Your task to perform on an android device: change the clock display to analog Image 0: 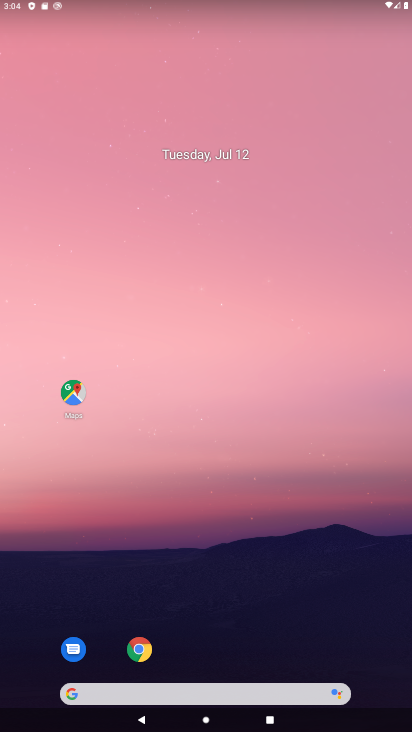
Step 0: drag from (214, 667) to (242, 84)
Your task to perform on an android device: change the clock display to analog Image 1: 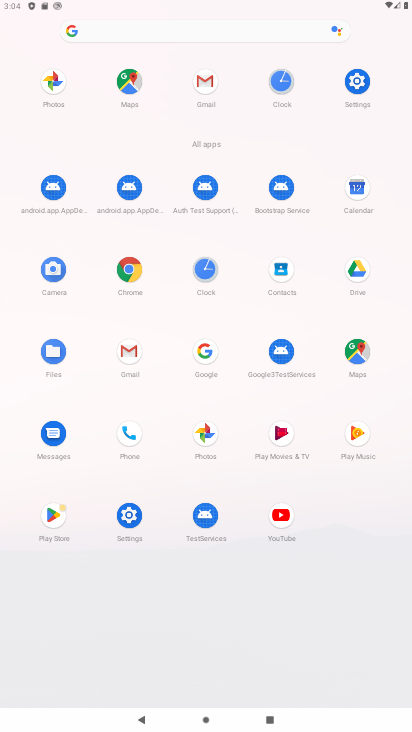
Step 1: click (201, 264)
Your task to perform on an android device: change the clock display to analog Image 2: 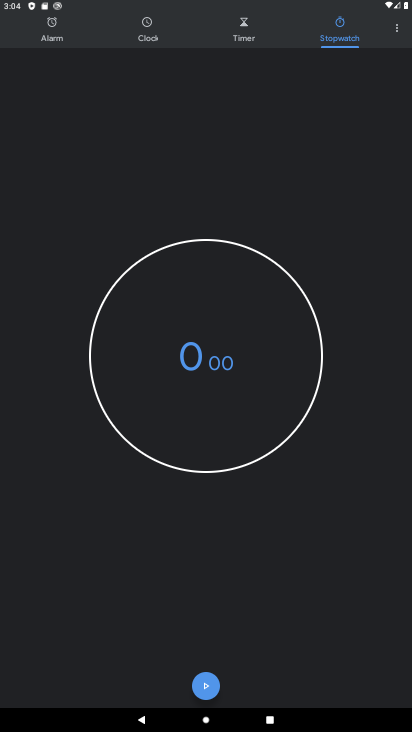
Step 2: click (399, 25)
Your task to perform on an android device: change the clock display to analog Image 3: 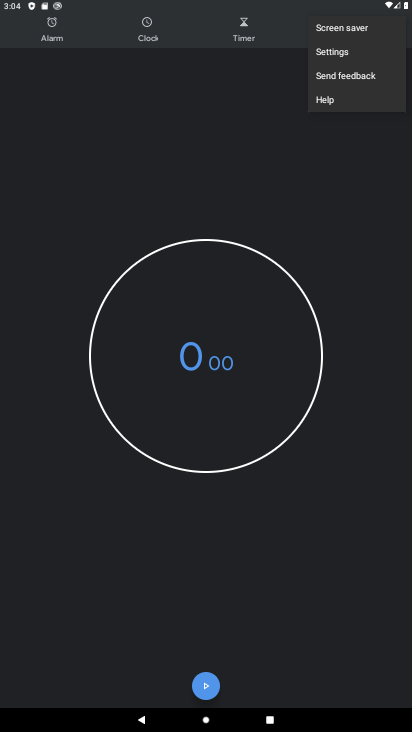
Step 3: click (353, 49)
Your task to perform on an android device: change the clock display to analog Image 4: 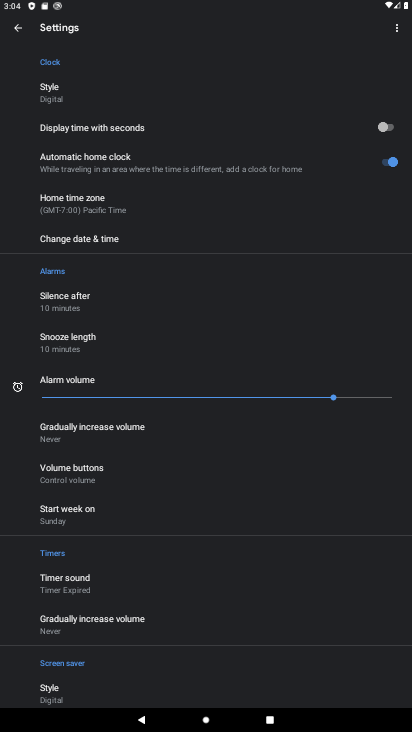
Step 4: click (70, 93)
Your task to perform on an android device: change the clock display to analog Image 5: 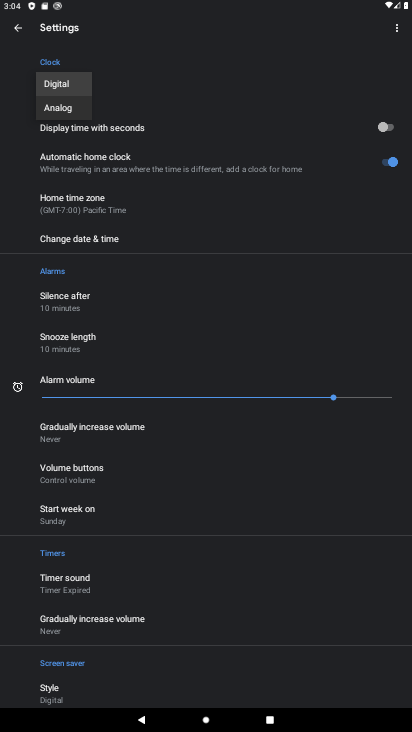
Step 5: click (68, 108)
Your task to perform on an android device: change the clock display to analog Image 6: 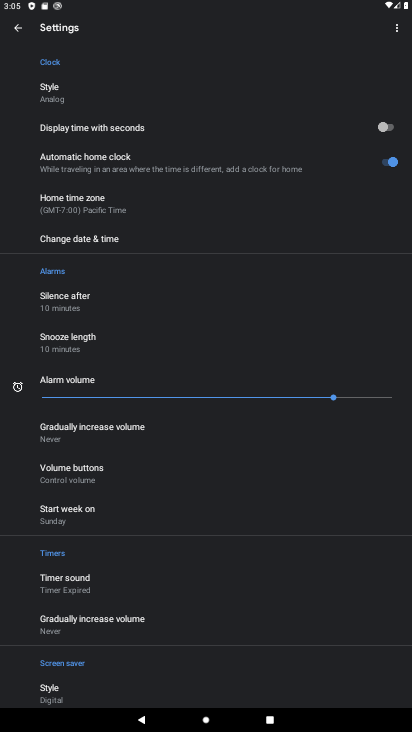
Step 6: task complete